Your task to perform on an android device: Search for "usb-c to usb-a" on bestbuy, select the first entry, and add it to the cart. Image 0: 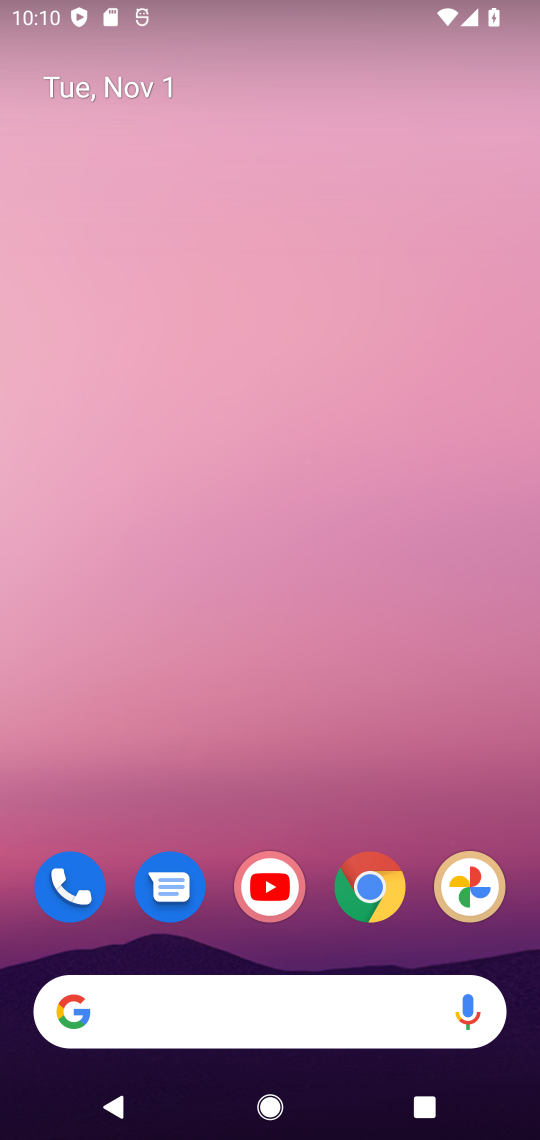
Step 0: click (365, 892)
Your task to perform on an android device: Search for "usb-c to usb-a" on bestbuy, select the first entry, and add it to the cart. Image 1: 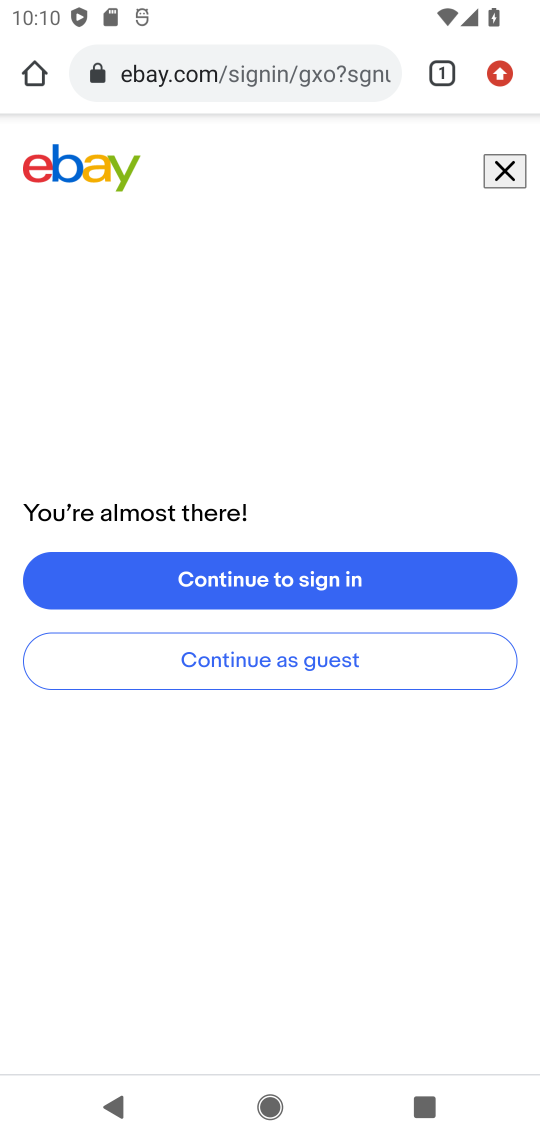
Step 1: click (273, 80)
Your task to perform on an android device: Search for "usb-c to usb-a" on bestbuy, select the first entry, and add it to the cart. Image 2: 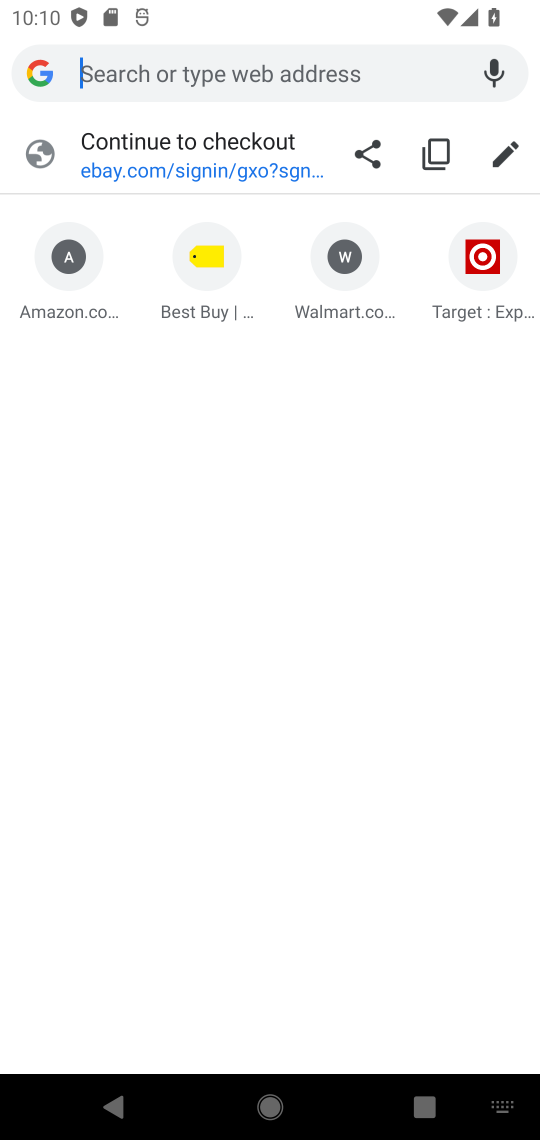
Step 2: click (190, 254)
Your task to perform on an android device: Search for "usb-c to usb-a" on bestbuy, select the first entry, and add it to the cart. Image 3: 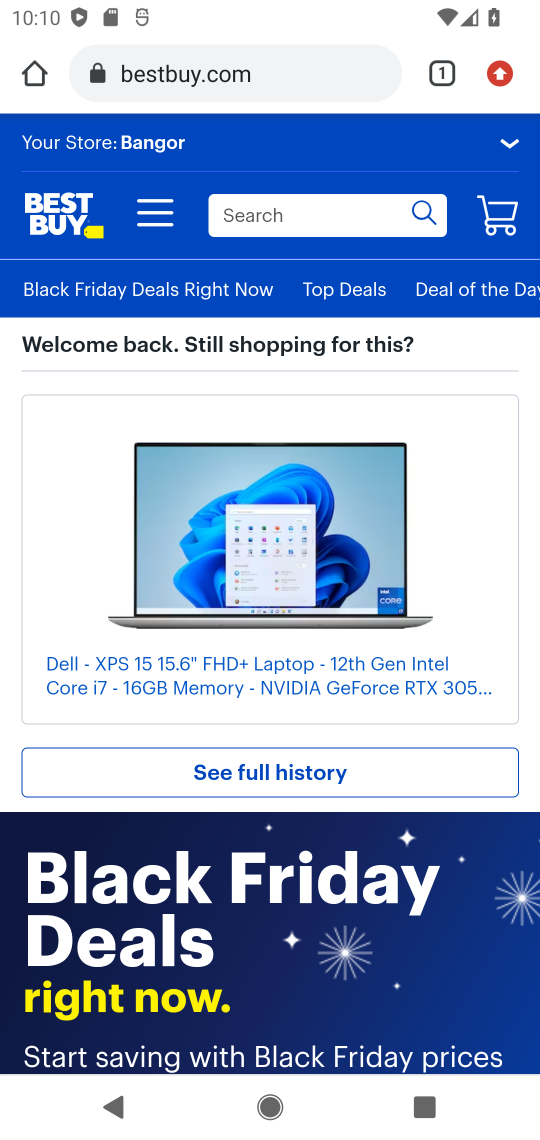
Step 3: click (333, 214)
Your task to perform on an android device: Search for "usb-c to usb-a" on bestbuy, select the first entry, and add it to the cart. Image 4: 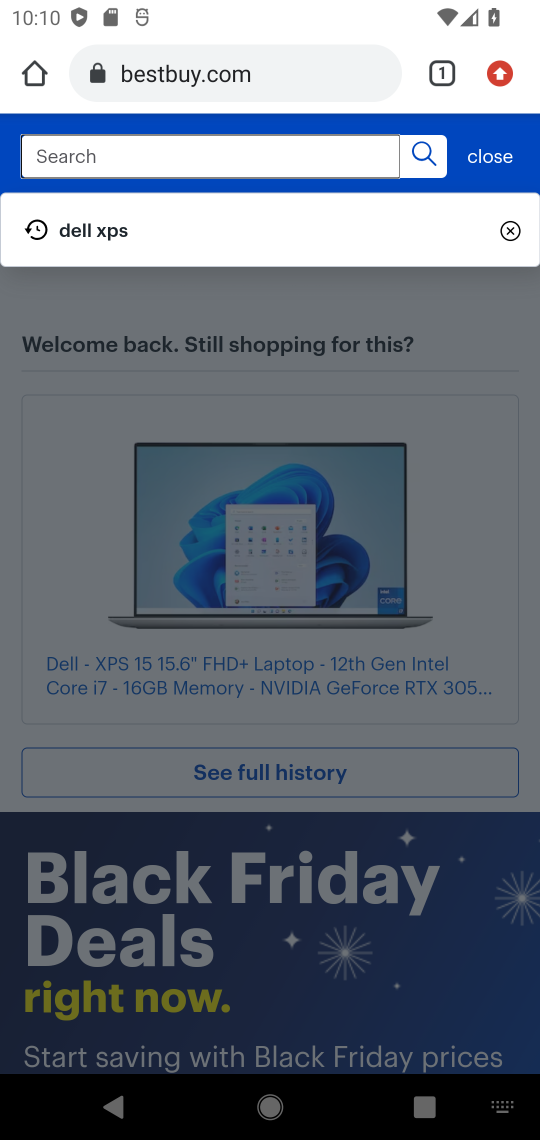
Step 4: type "usb-c to usb-a"
Your task to perform on an android device: Search for "usb-c to usb-a" on bestbuy, select the first entry, and add it to the cart. Image 5: 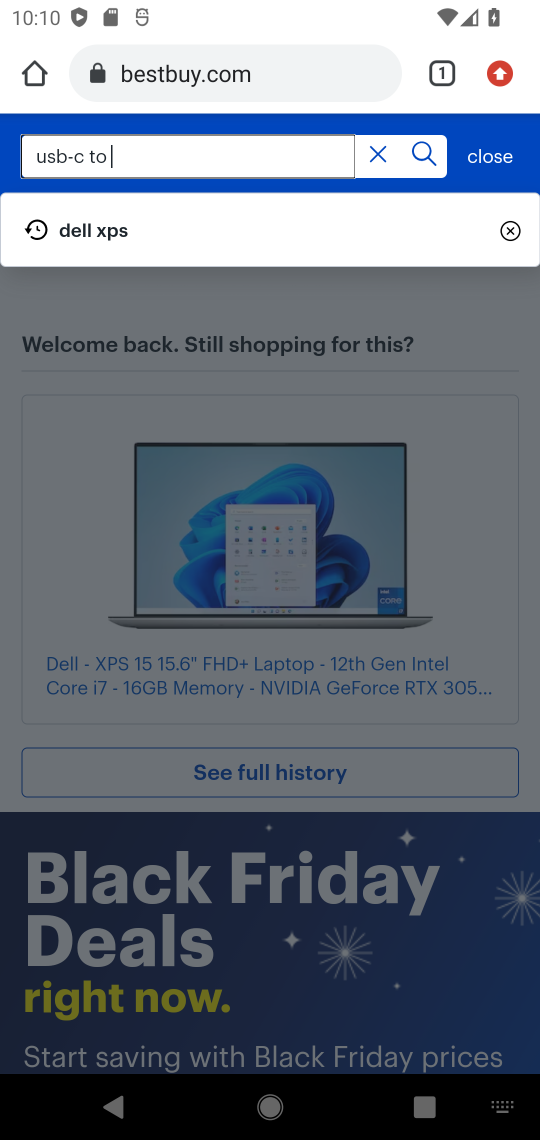
Step 5: press enter
Your task to perform on an android device: Search for "usb-c to usb-a" on bestbuy, select the first entry, and add it to the cart. Image 6: 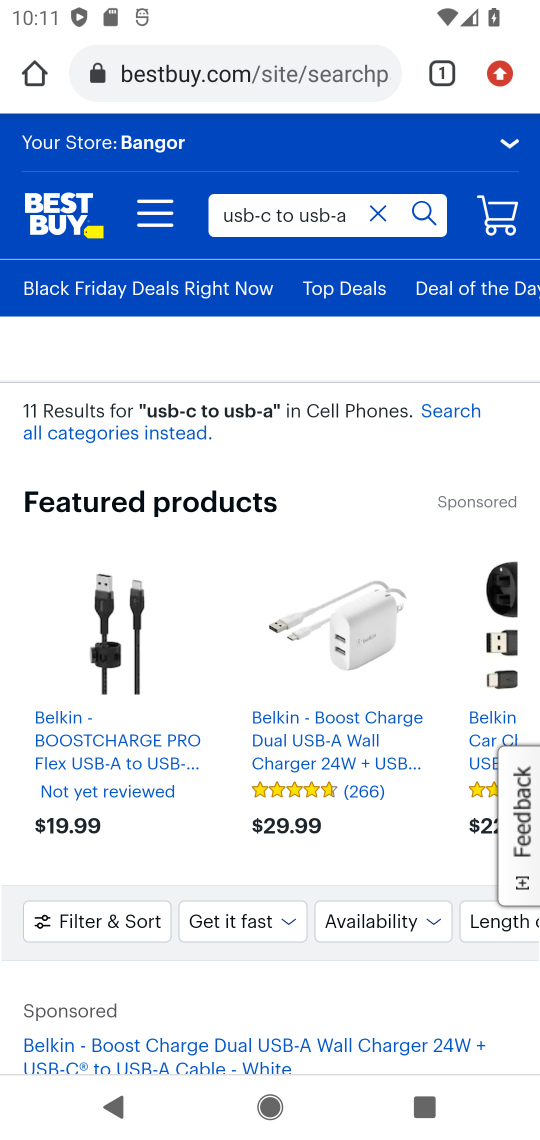
Step 6: drag from (385, 794) to (347, 409)
Your task to perform on an android device: Search for "usb-c to usb-a" on bestbuy, select the first entry, and add it to the cart. Image 7: 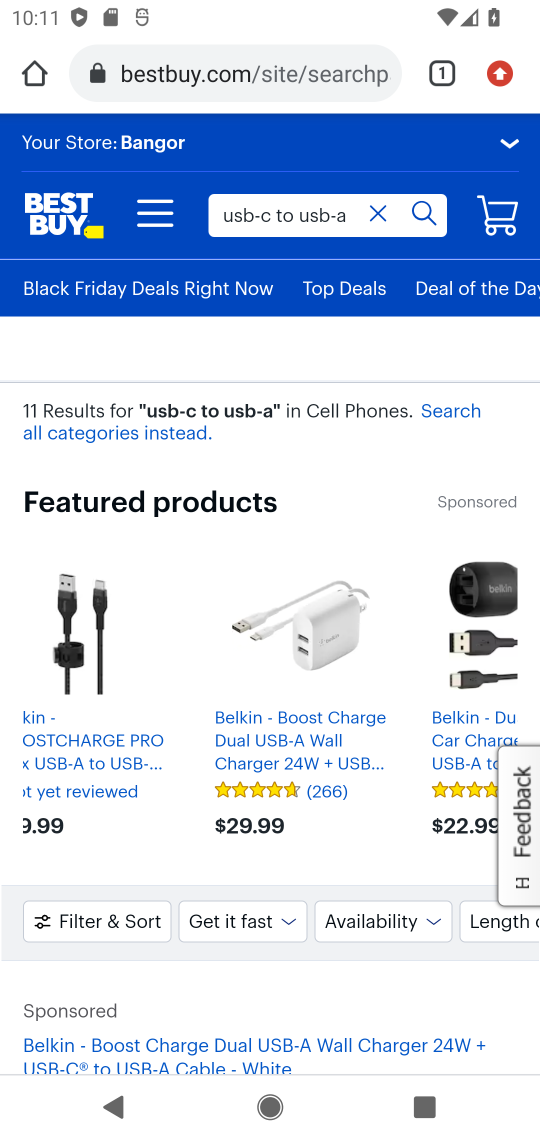
Step 7: drag from (256, 982) to (290, 497)
Your task to perform on an android device: Search for "usb-c to usb-a" on bestbuy, select the first entry, and add it to the cart. Image 8: 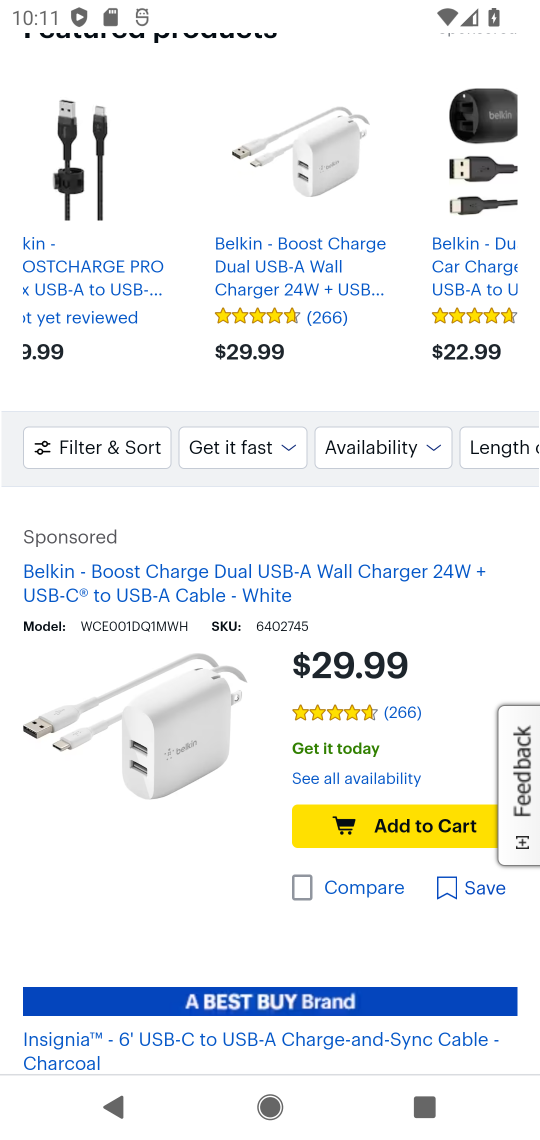
Step 8: click (127, 759)
Your task to perform on an android device: Search for "usb-c to usb-a" on bestbuy, select the first entry, and add it to the cart. Image 9: 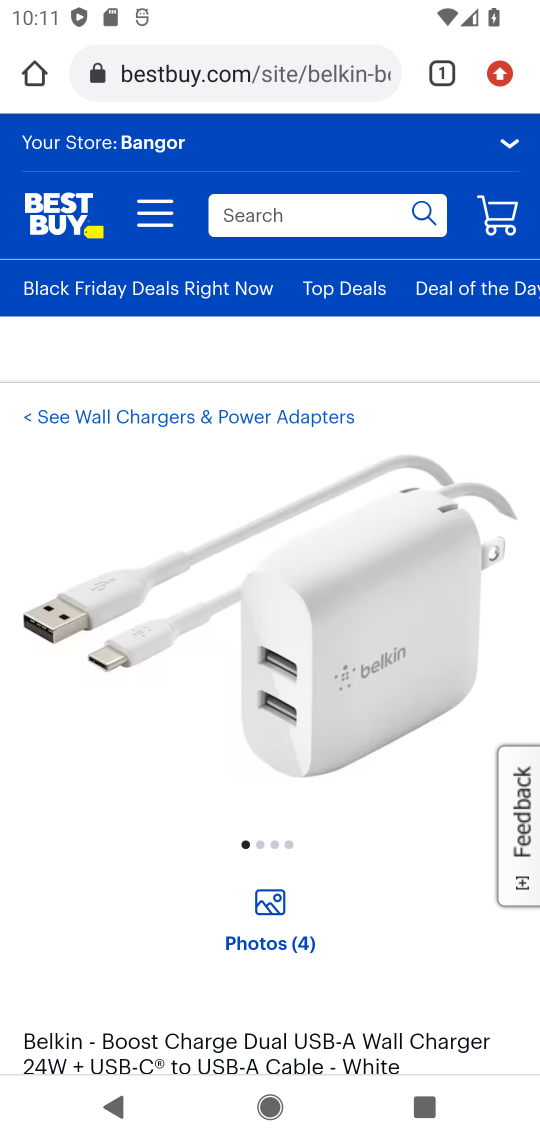
Step 9: drag from (292, 853) to (277, 314)
Your task to perform on an android device: Search for "usb-c to usb-a" on bestbuy, select the first entry, and add it to the cart. Image 10: 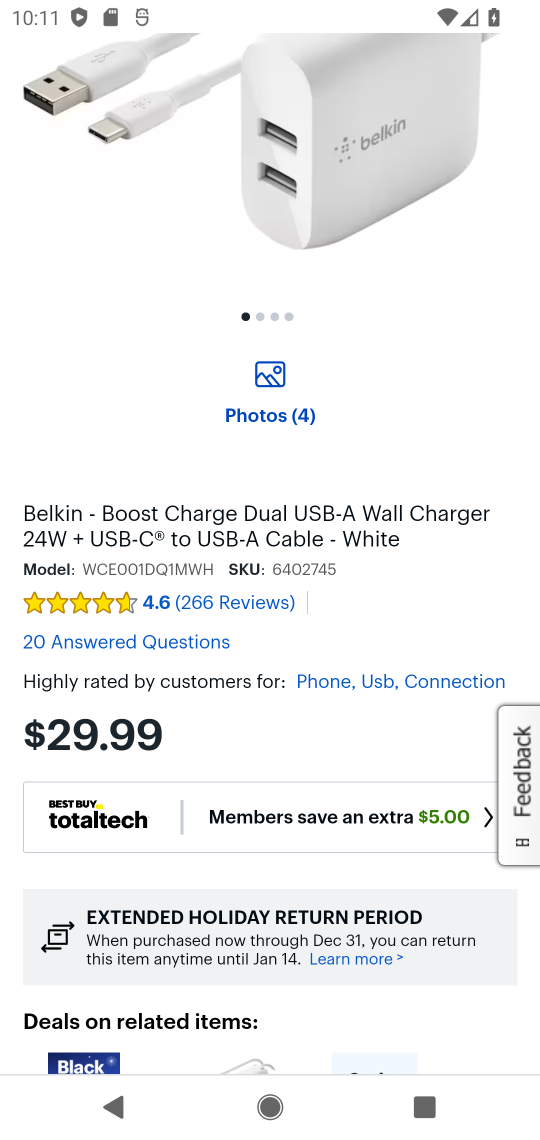
Step 10: drag from (298, 776) to (303, 236)
Your task to perform on an android device: Search for "usb-c to usb-a" on bestbuy, select the first entry, and add it to the cart. Image 11: 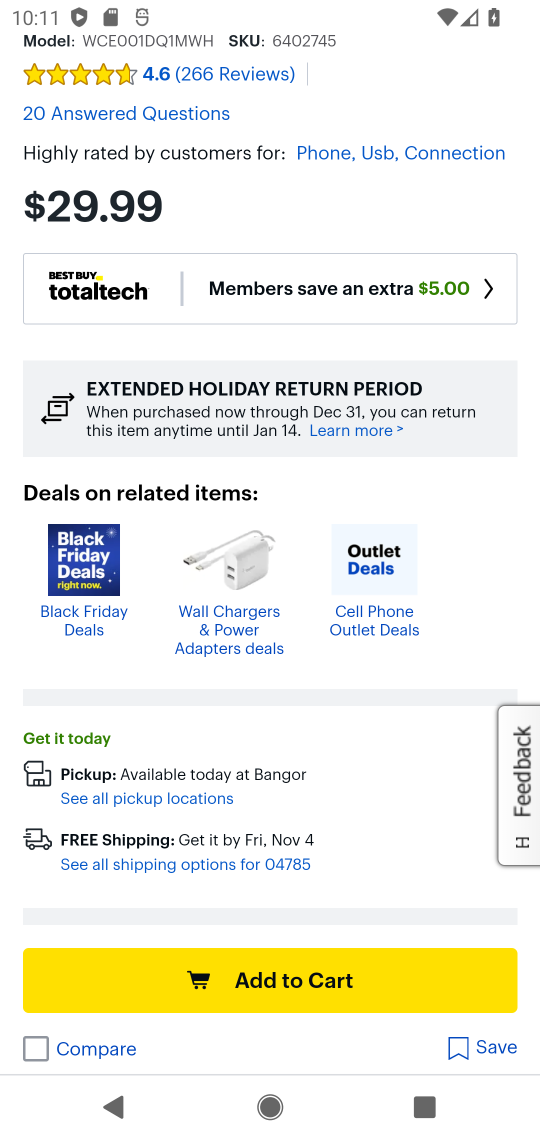
Step 11: click (341, 972)
Your task to perform on an android device: Search for "usb-c to usb-a" on bestbuy, select the first entry, and add it to the cart. Image 12: 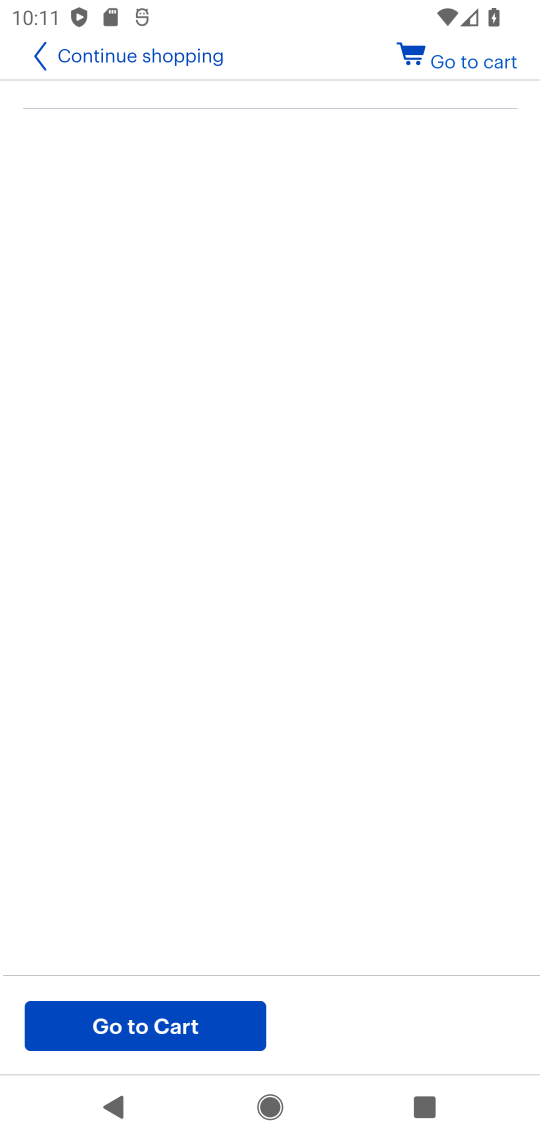
Step 12: task complete